Your task to perform on an android device: search for starred emails in the gmail app Image 0: 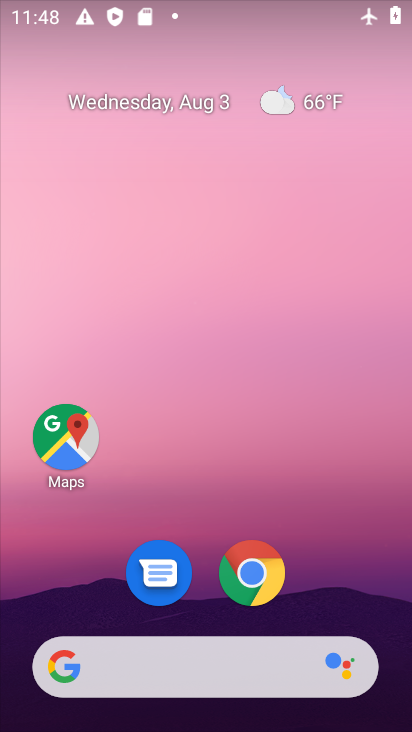
Step 0: drag from (319, 572) to (337, 59)
Your task to perform on an android device: search for starred emails in the gmail app Image 1: 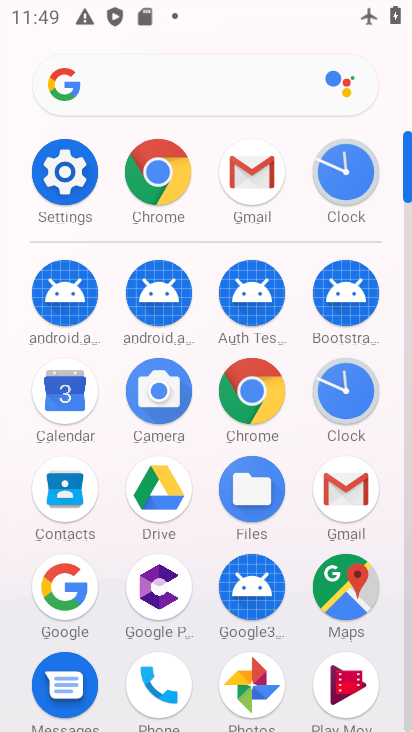
Step 1: click (343, 496)
Your task to perform on an android device: search for starred emails in the gmail app Image 2: 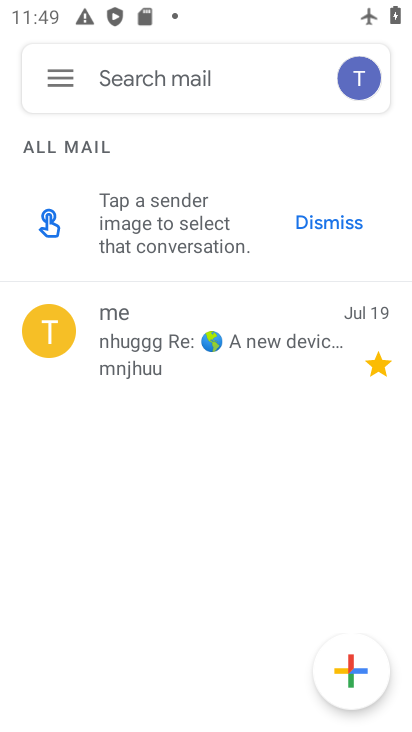
Step 2: click (69, 64)
Your task to perform on an android device: search for starred emails in the gmail app Image 3: 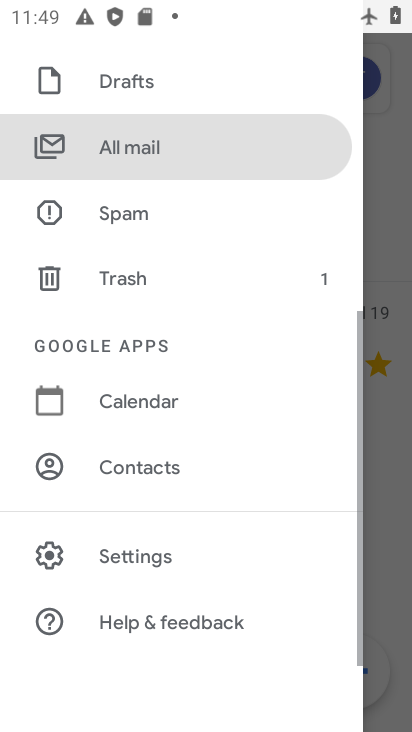
Step 3: drag from (129, 182) to (149, 555)
Your task to perform on an android device: search for starred emails in the gmail app Image 4: 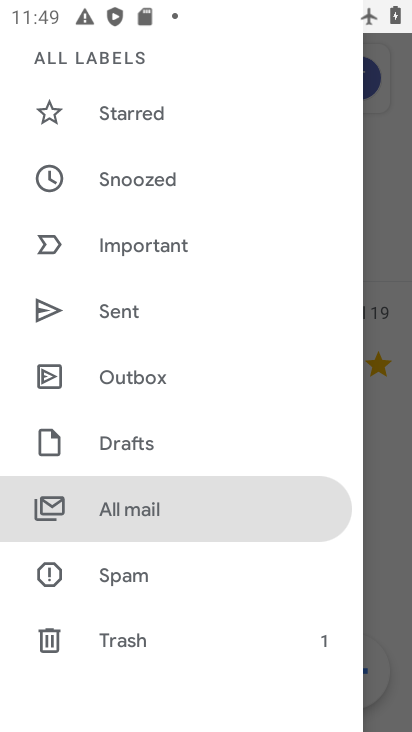
Step 4: click (136, 130)
Your task to perform on an android device: search for starred emails in the gmail app Image 5: 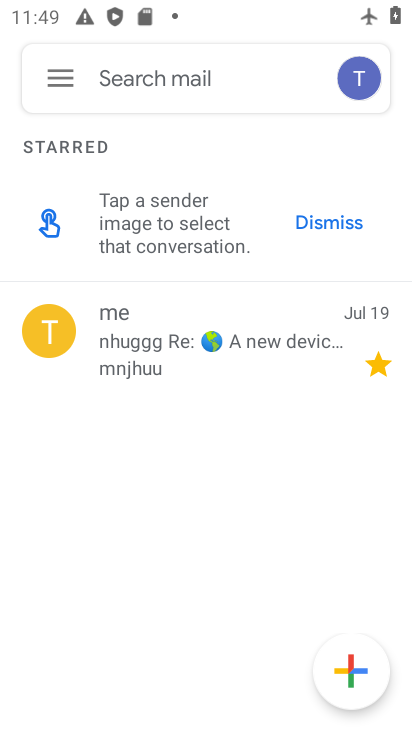
Step 5: task complete